Your task to perform on an android device: Empty the shopping cart on amazon.com. Image 0: 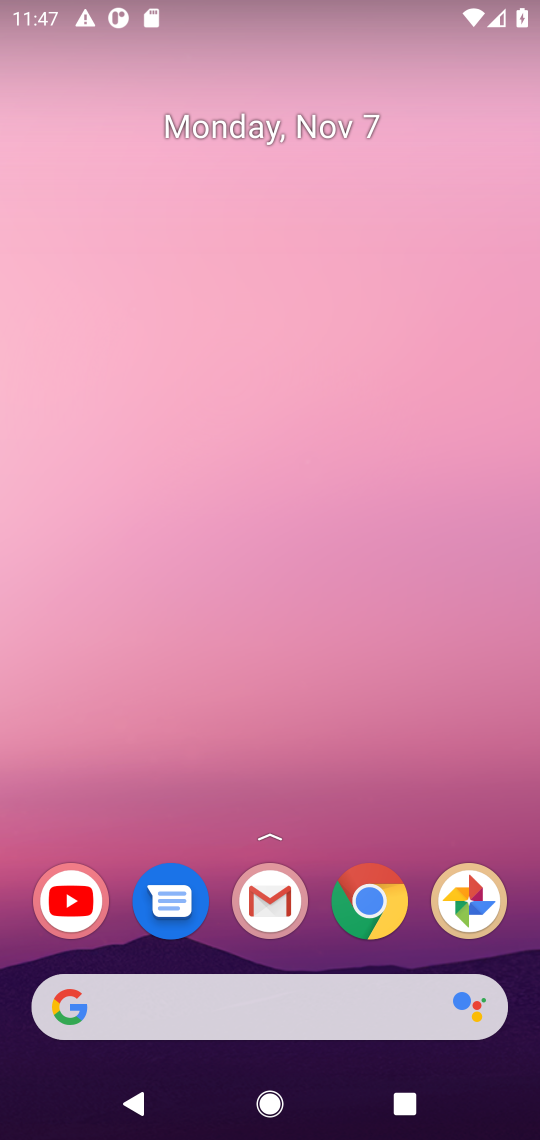
Step 0: click (375, 923)
Your task to perform on an android device: Empty the shopping cart on amazon.com. Image 1: 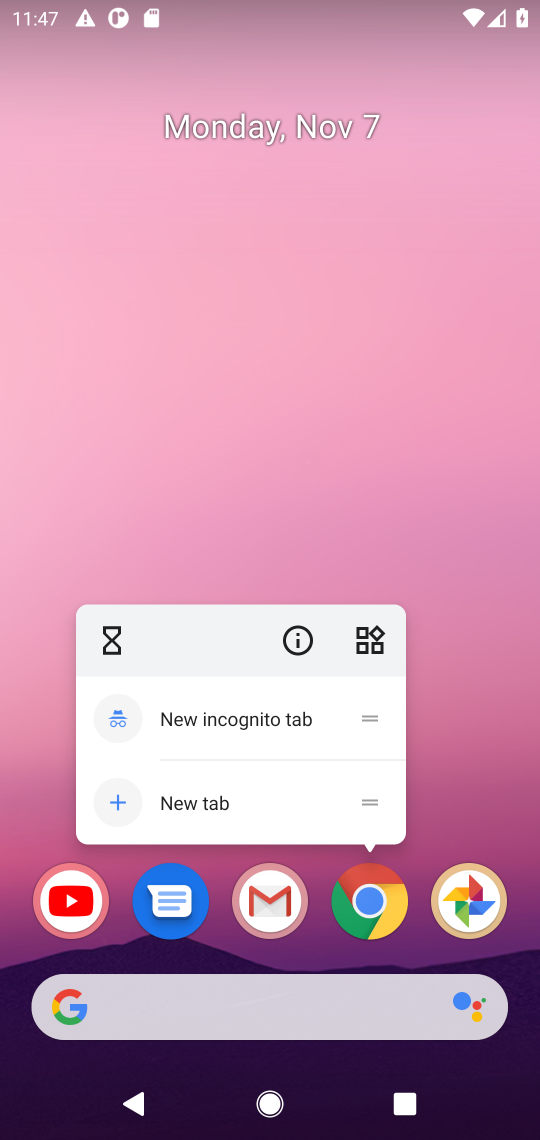
Step 1: click (375, 919)
Your task to perform on an android device: Empty the shopping cart on amazon.com. Image 2: 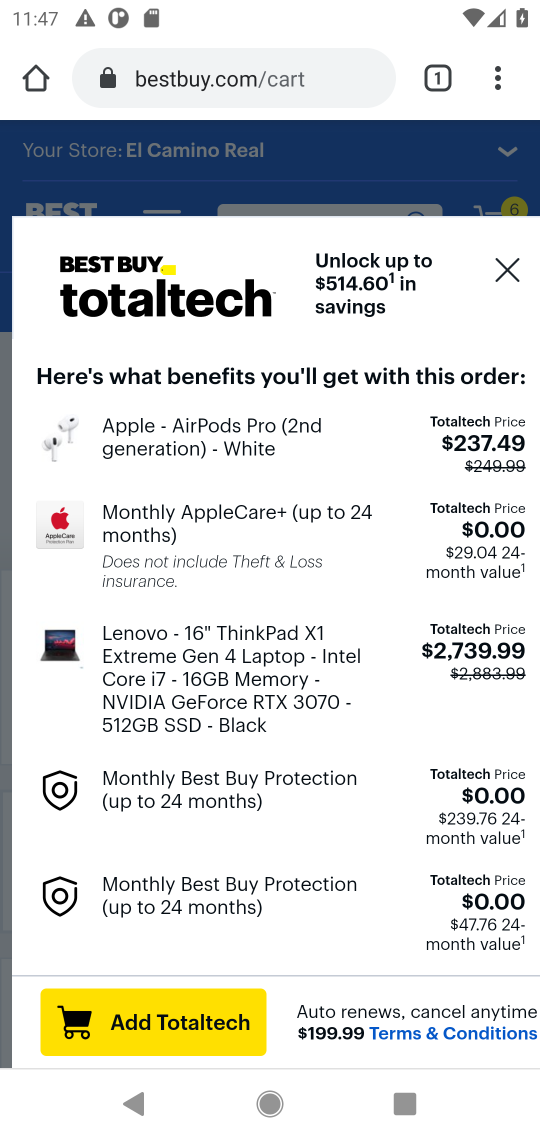
Step 2: click (224, 86)
Your task to perform on an android device: Empty the shopping cart on amazon.com. Image 3: 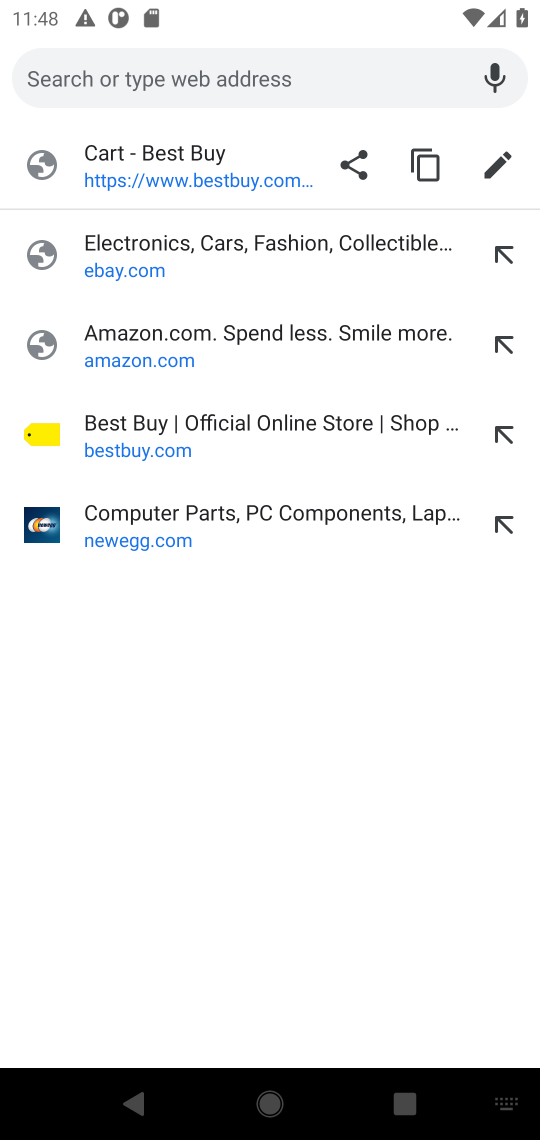
Step 3: type "amazon.com"
Your task to perform on an android device: Empty the shopping cart on amazon.com. Image 4: 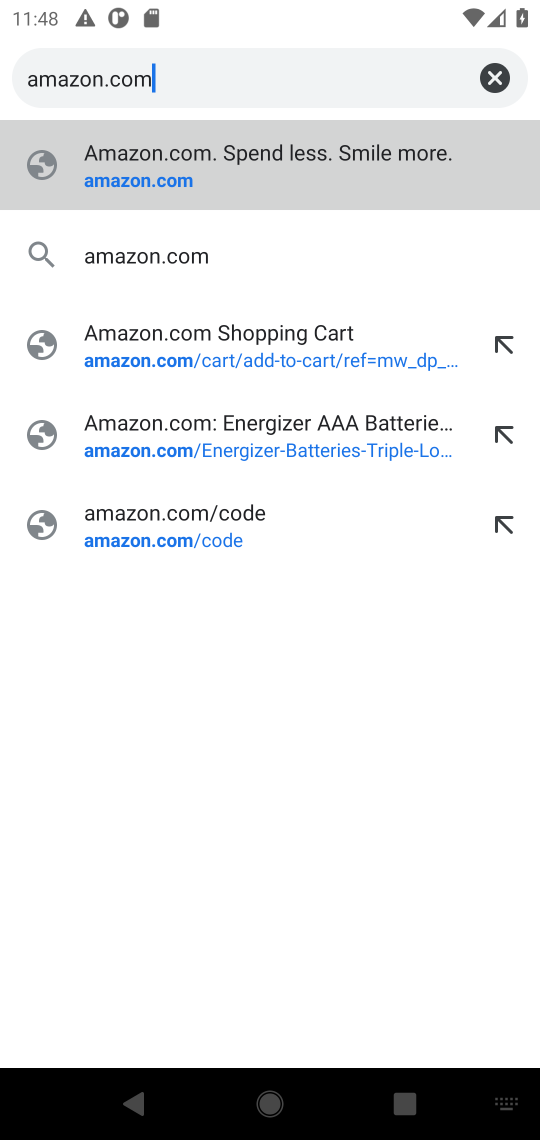
Step 4: click (281, 153)
Your task to perform on an android device: Empty the shopping cart on amazon.com. Image 5: 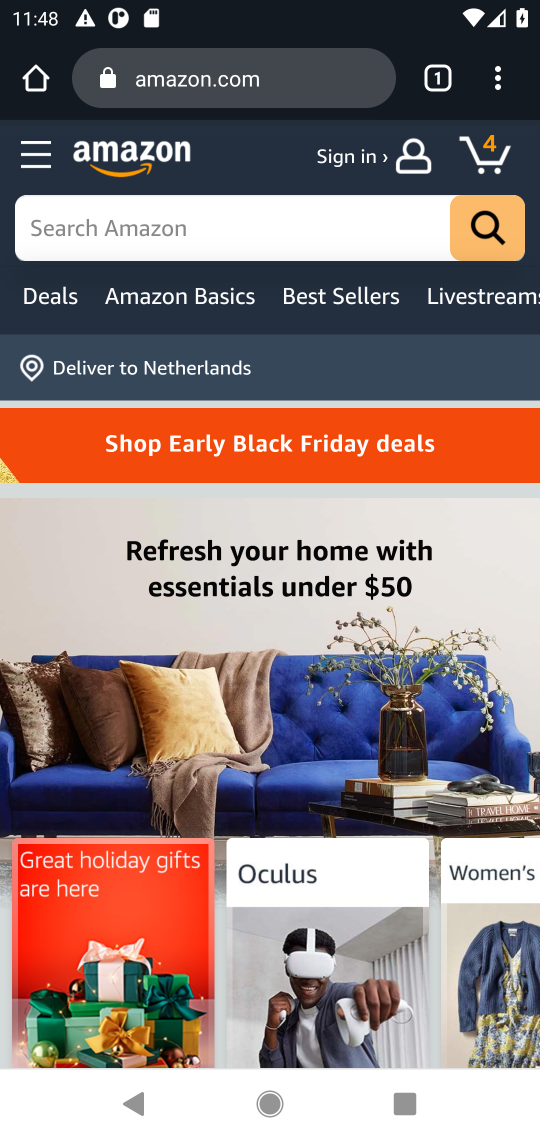
Step 5: click (517, 147)
Your task to perform on an android device: Empty the shopping cart on amazon.com. Image 6: 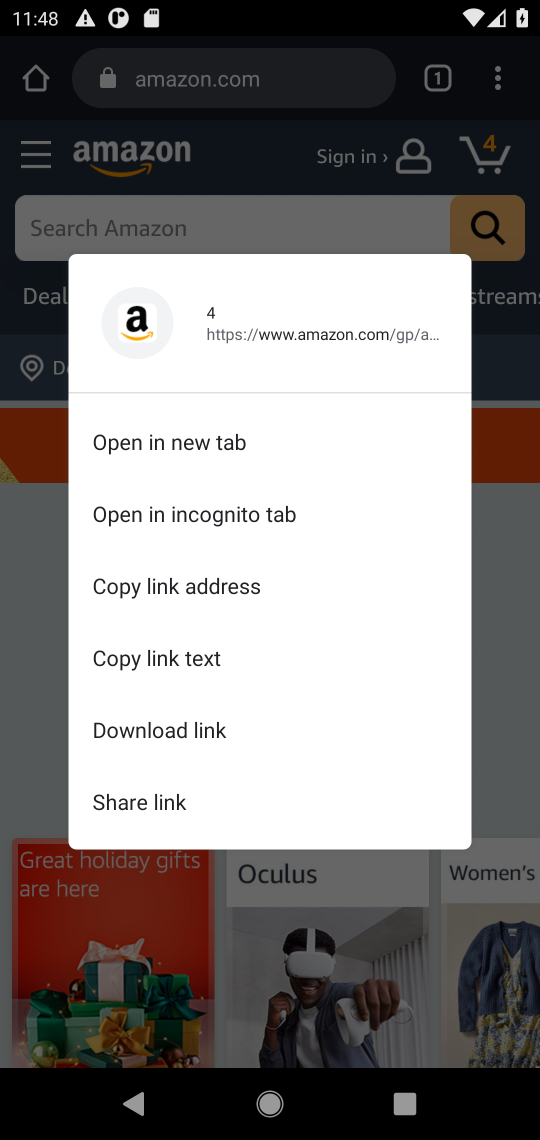
Step 6: click (296, 167)
Your task to perform on an android device: Empty the shopping cart on amazon.com. Image 7: 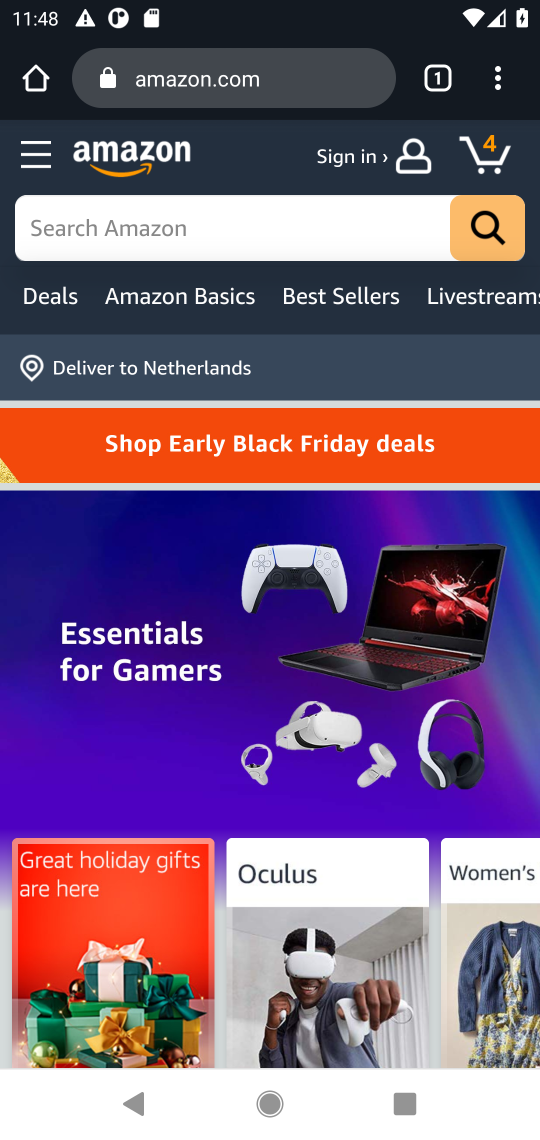
Step 7: click (491, 155)
Your task to perform on an android device: Empty the shopping cart on amazon.com. Image 8: 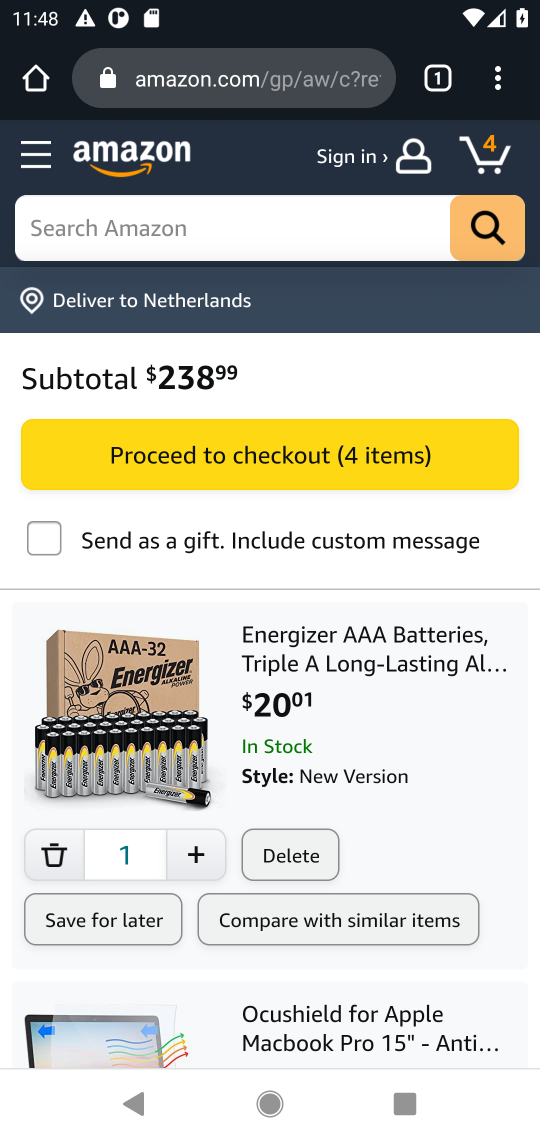
Step 8: click (278, 850)
Your task to perform on an android device: Empty the shopping cart on amazon.com. Image 9: 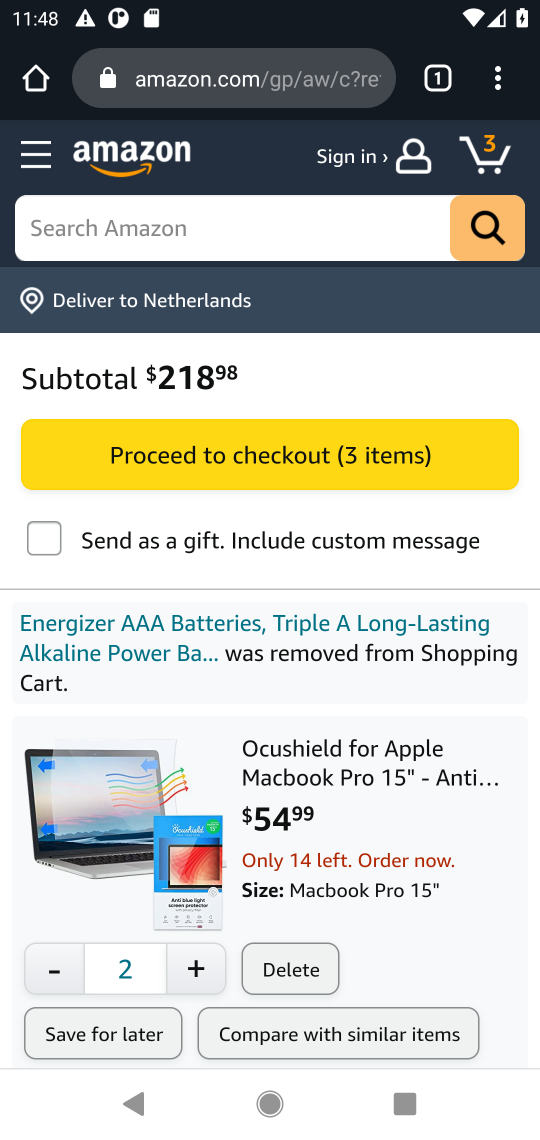
Step 9: click (279, 972)
Your task to perform on an android device: Empty the shopping cart on amazon.com. Image 10: 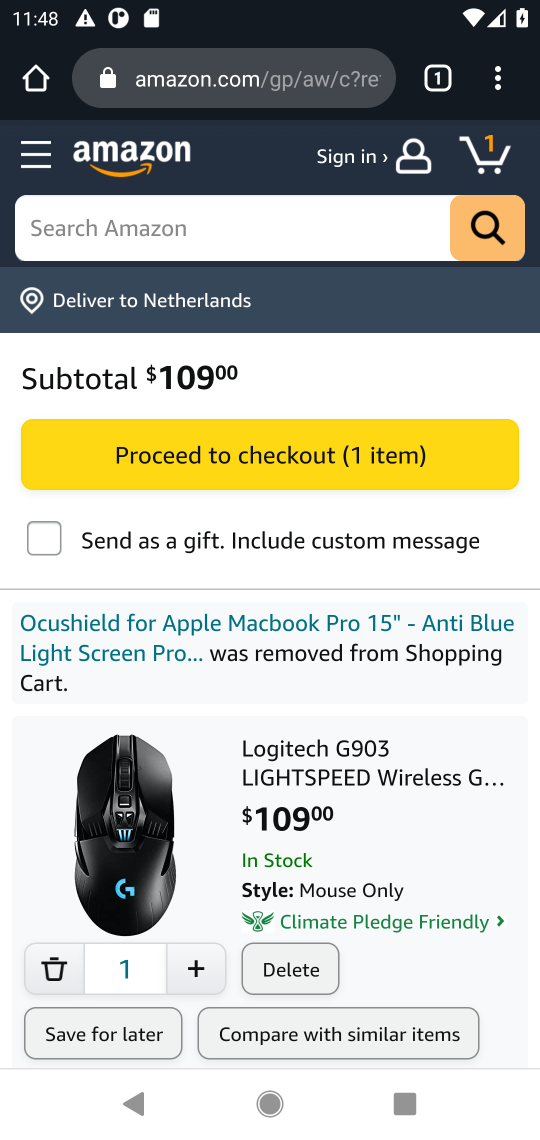
Step 10: click (292, 964)
Your task to perform on an android device: Empty the shopping cart on amazon.com. Image 11: 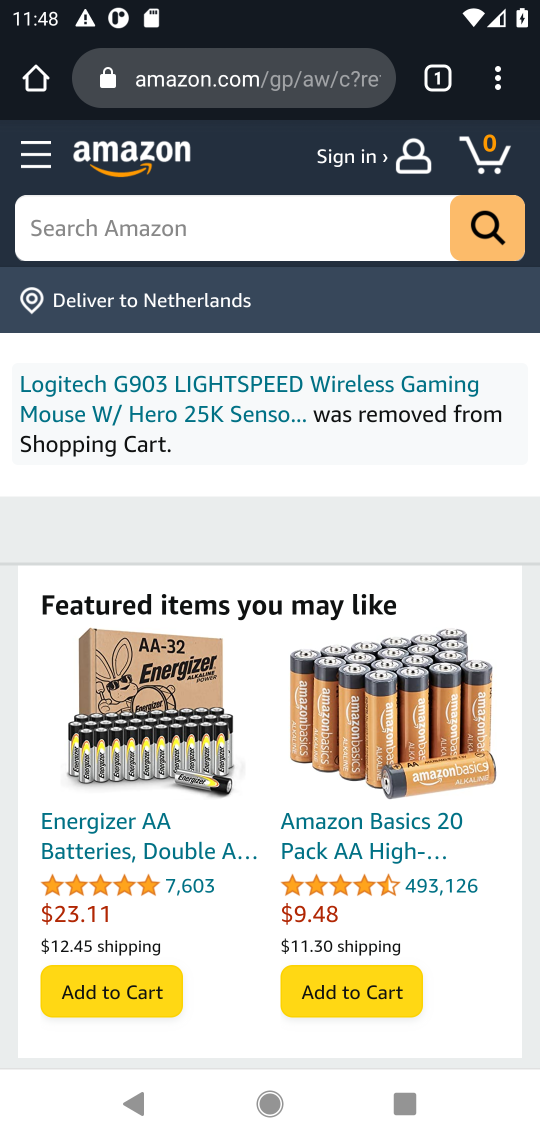
Step 11: task complete